Your task to perform on an android device: turn off translation in the chrome app Image 0: 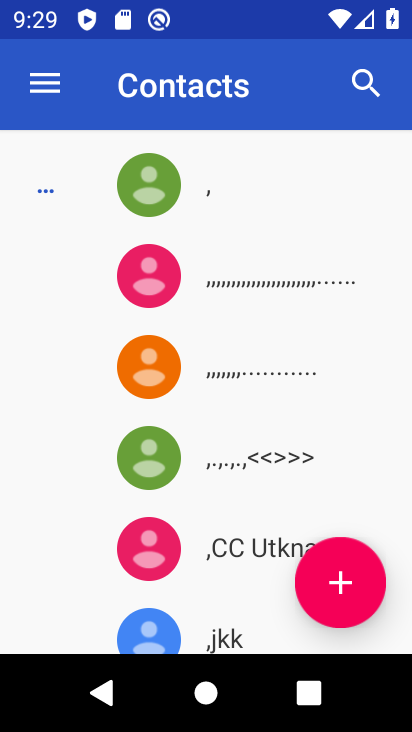
Step 0: press home button
Your task to perform on an android device: turn off translation in the chrome app Image 1: 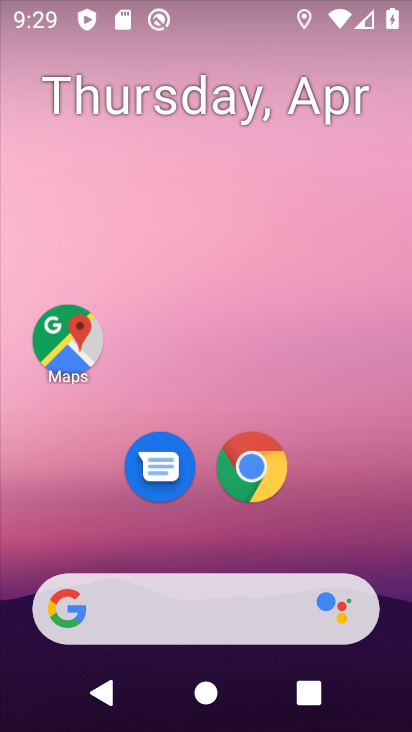
Step 1: click (262, 475)
Your task to perform on an android device: turn off translation in the chrome app Image 2: 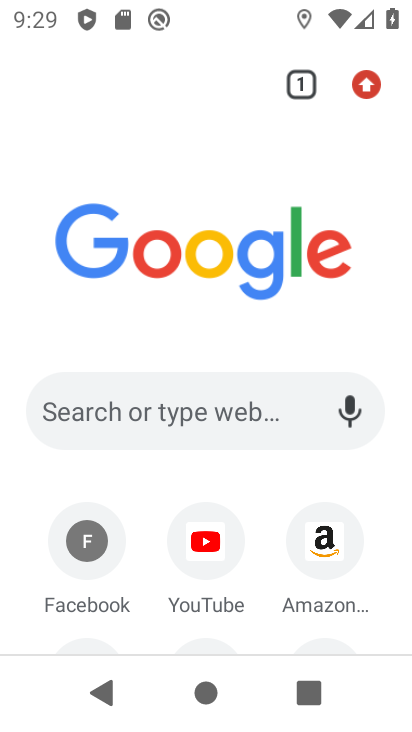
Step 2: click (366, 114)
Your task to perform on an android device: turn off translation in the chrome app Image 3: 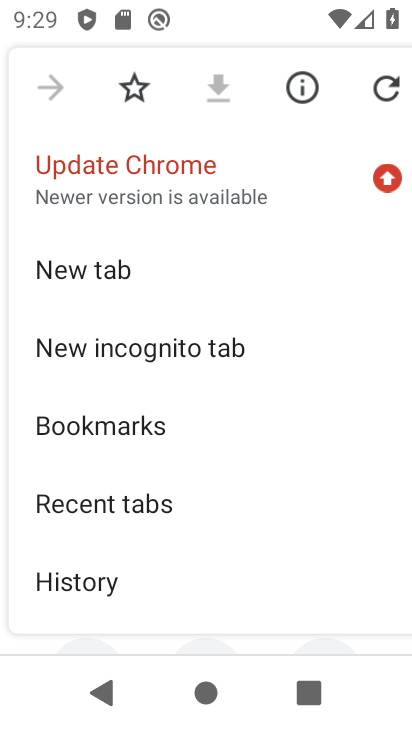
Step 3: drag from (296, 584) to (236, 241)
Your task to perform on an android device: turn off translation in the chrome app Image 4: 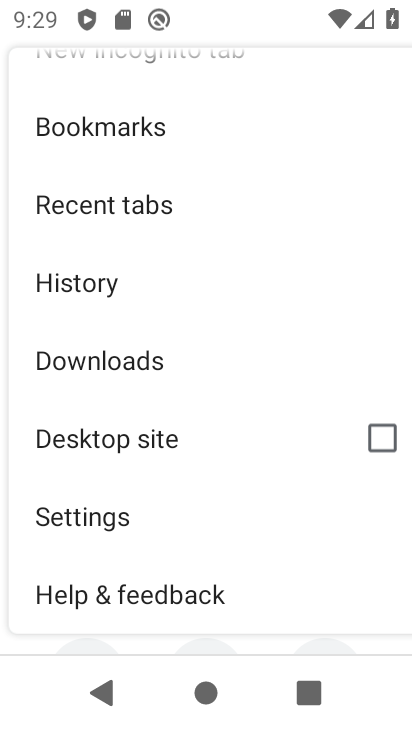
Step 4: click (214, 512)
Your task to perform on an android device: turn off translation in the chrome app Image 5: 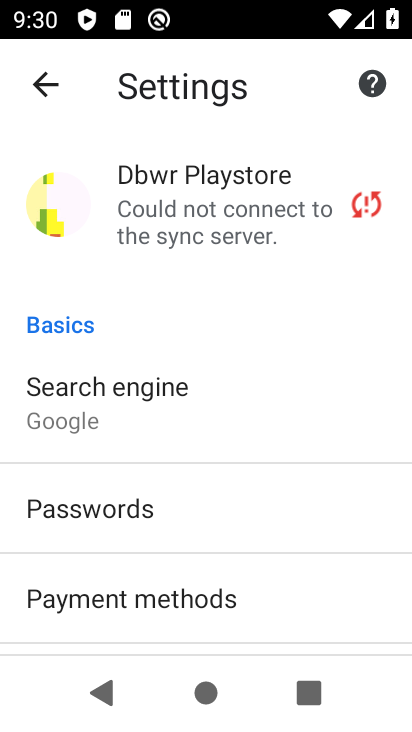
Step 5: drag from (301, 632) to (279, 223)
Your task to perform on an android device: turn off translation in the chrome app Image 6: 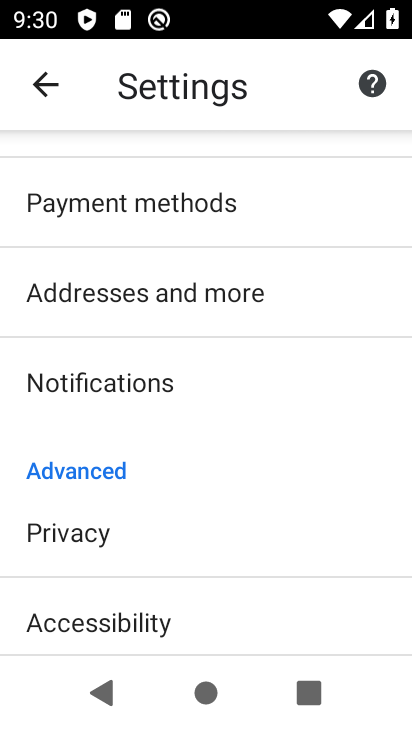
Step 6: drag from (315, 515) to (269, 251)
Your task to perform on an android device: turn off translation in the chrome app Image 7: 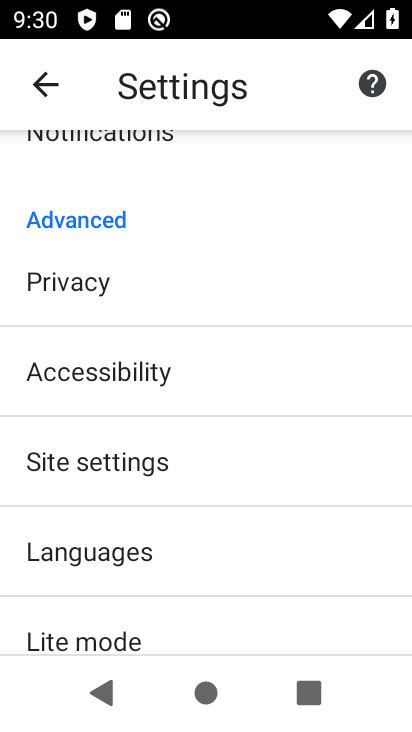
Step 7: click (275, 536)
Your task to perform on an android device: turn off translation in the chrome app Image 8: 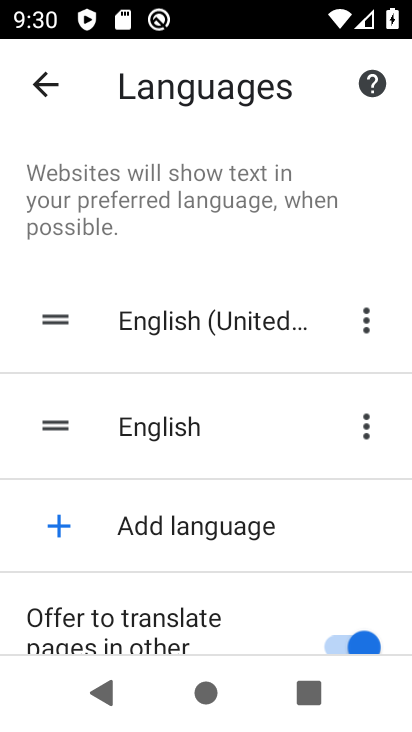
Step 8: click (341, 651)
Your task to perform on an android device: turn off translation in the chrome app Image 9: 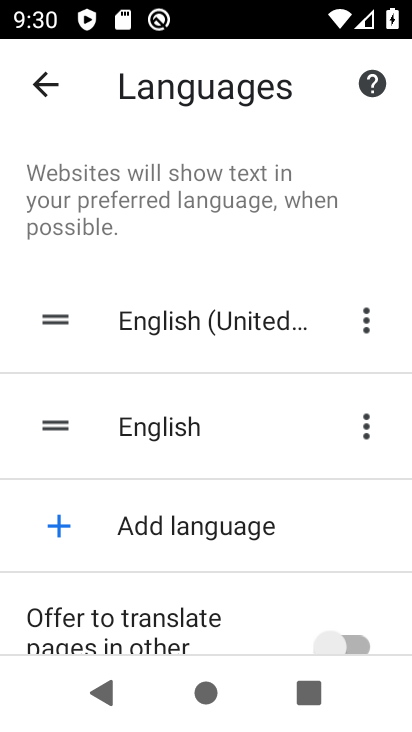
Step 9: task complete